Your task to perform on an android device: Open Chrome and go to the settings page Image 0: 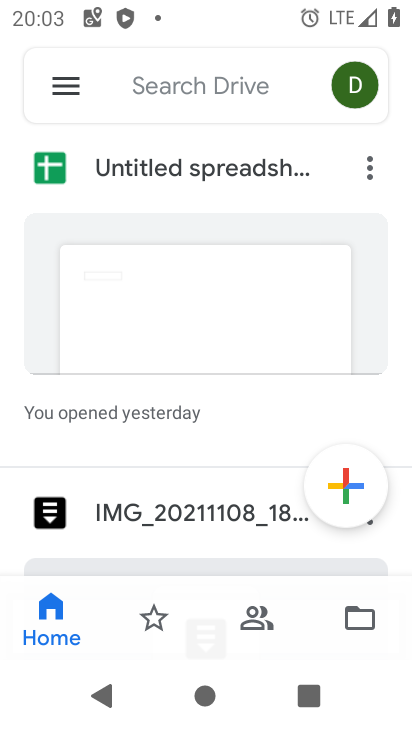
Step 0: press home button
Your task to perform on an android device: Open Chrome and go to the settings page Image 1: 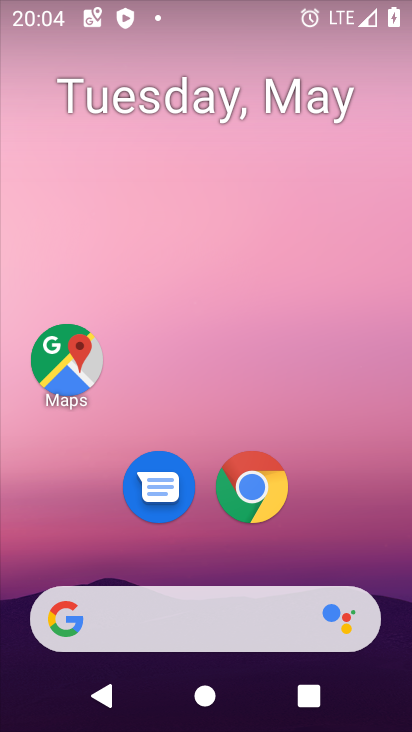
Step 1: click (263, 489)
Your task to perform on an android device: Open Chrome and go to the settings page Image 2: 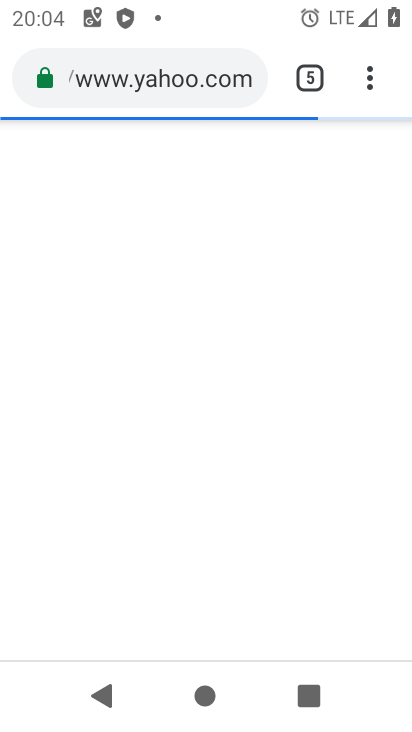
Step 2: click (367, 84)
Your task to perform on an android device: Open Chrome and go to the settings page Image 3: 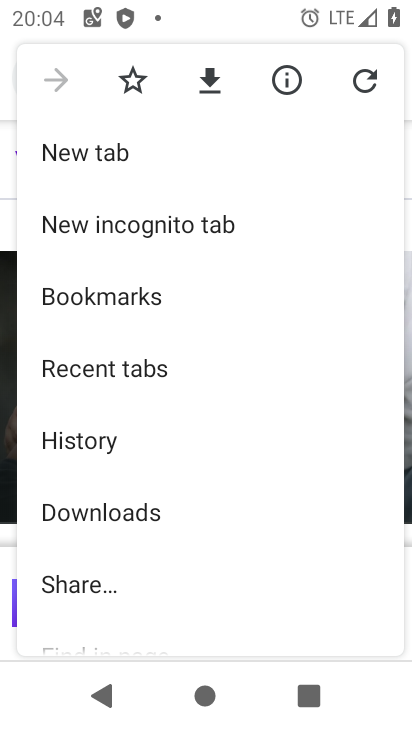
Step 3: drag from (244, 526) to (218, 225)
Your task to perform on an android device: Open Chrome and go to the settings page Image 4: 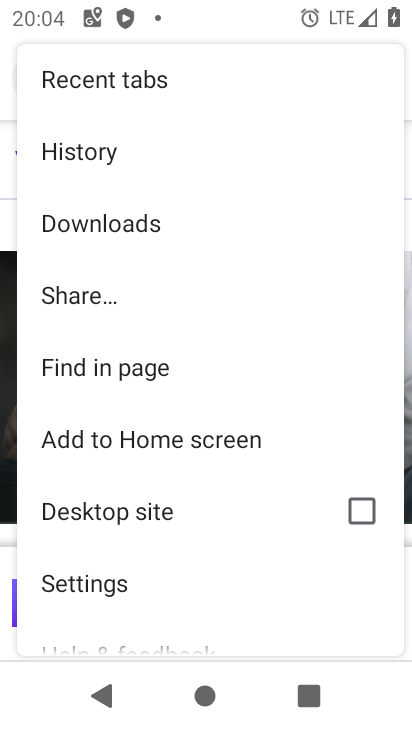
Step 4: click (100, 583)
Your task to perform on an android device: Open Chrome and go to the settings page Image 5: 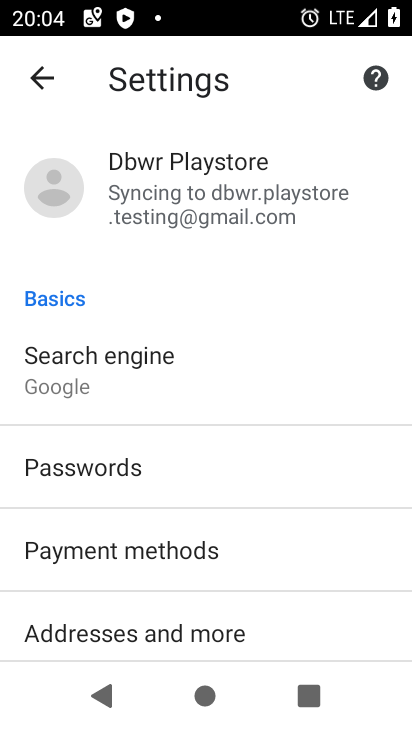
Step 5: task complete